Your task to perform on an android device: open device folders in google photos Image 0: 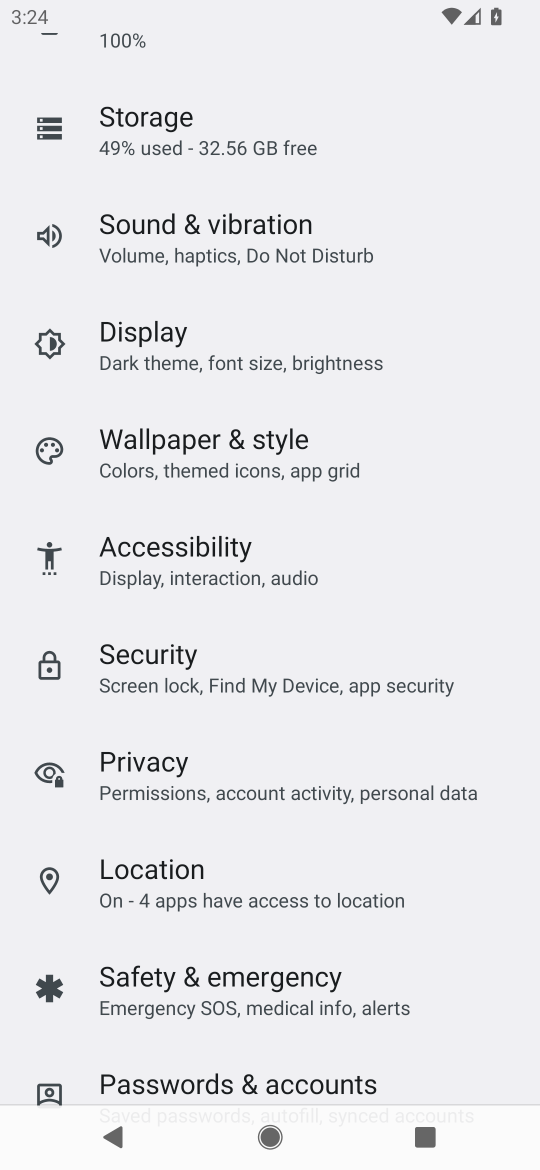
Step 0: press back button
Your task to perform on an android device: open device folders in google photos Image 1: 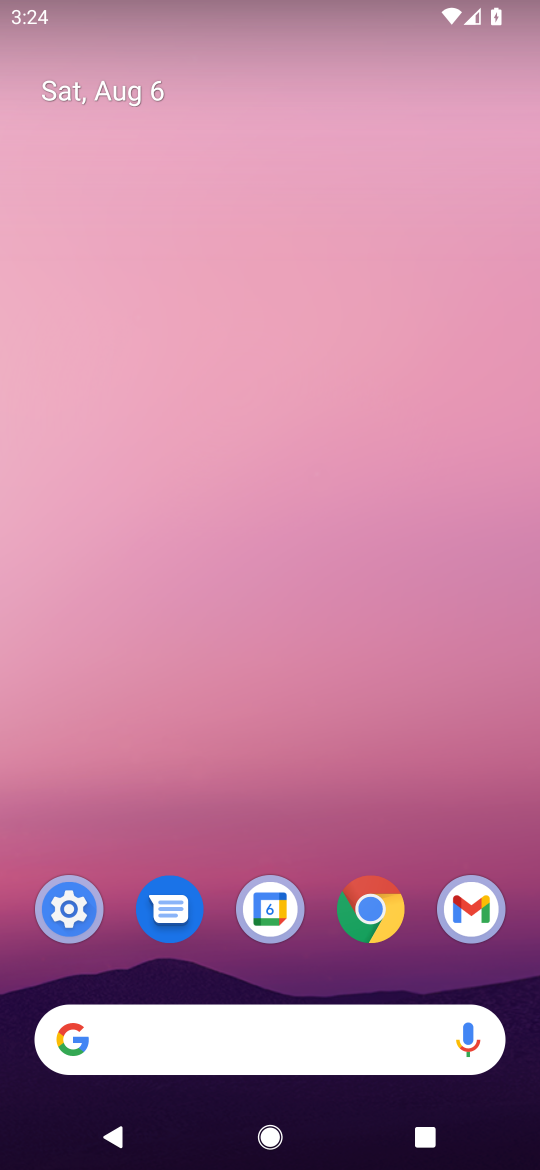
Step 1: drag from (231, 984) to (337, 56)
Your task to perform on an android device: open device folders in google photos Image 2: 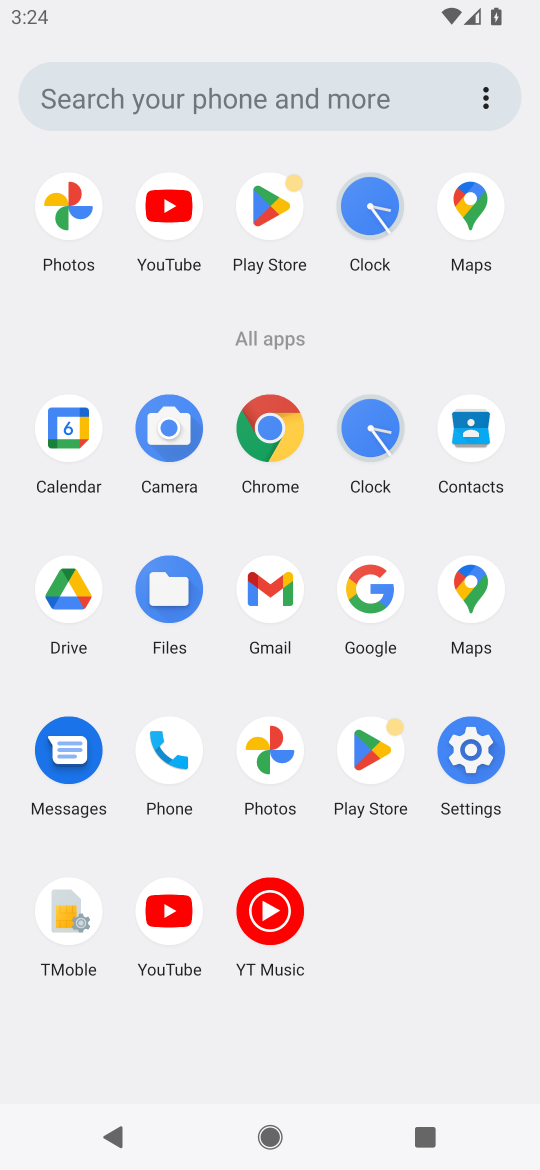
Step 2: click (284, 744)
Your task to perform on an android device: open device folders in google photos Image 3: 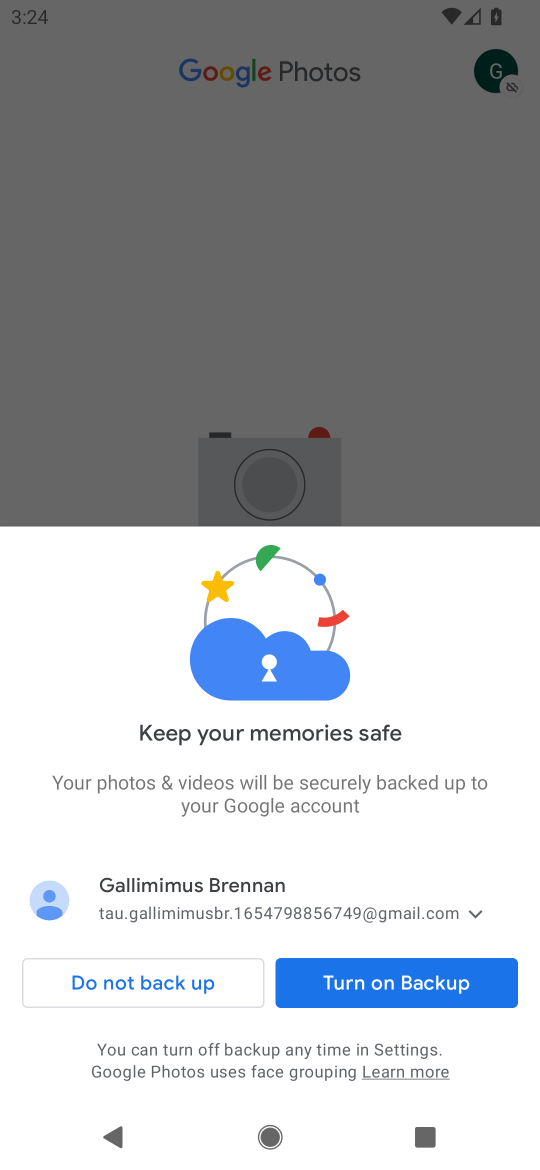
Step 3: click (193, 983)
Your task to perform on an android device: open device folders in google photos Image 4: 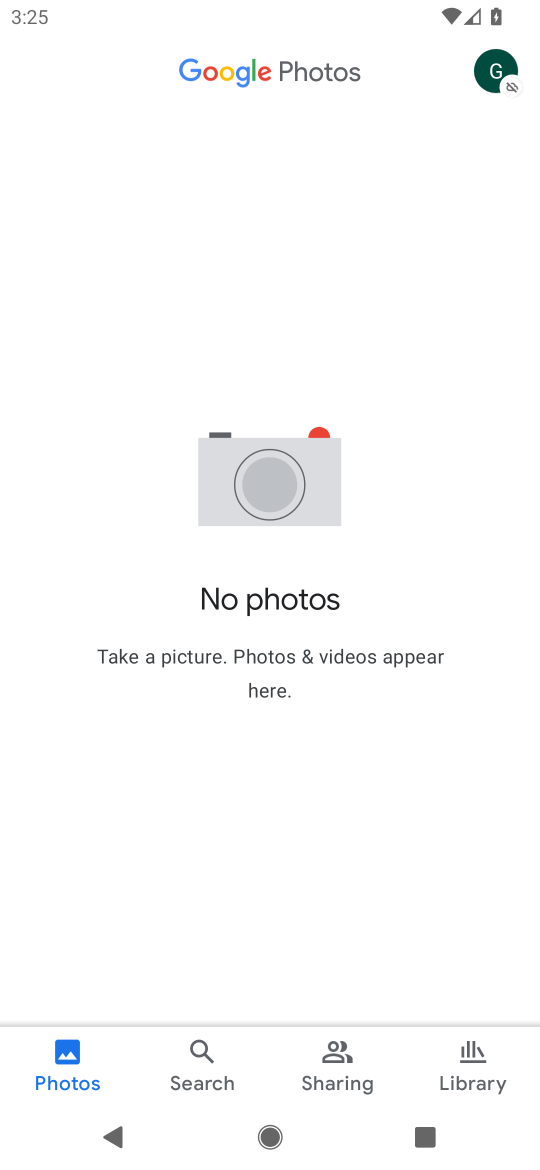
Step 4: click (499, 65)
Your task to perform on an android device: open device folders in google photos Image 5: 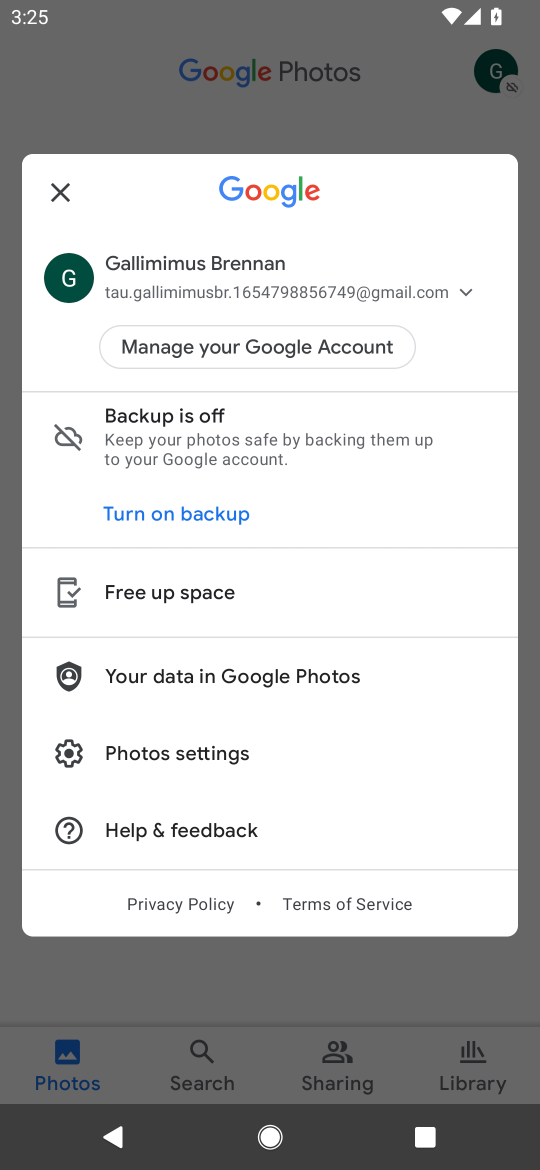
Step 5: task complete